Your task to perform on an android device: Open Chrome and go to the settings page Image 0: 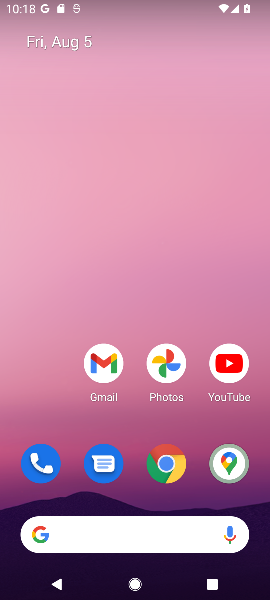
Step 0: drag from (194, 547) to (98, 66)
Your task to perform on an android device: Open Chrome and go to the settings page Image 1: 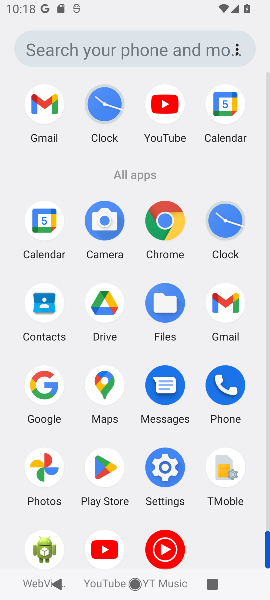
Step 1: click (169, 477)
Your task to perform on an android device: Open Chrome and go to the settings page Image 2: 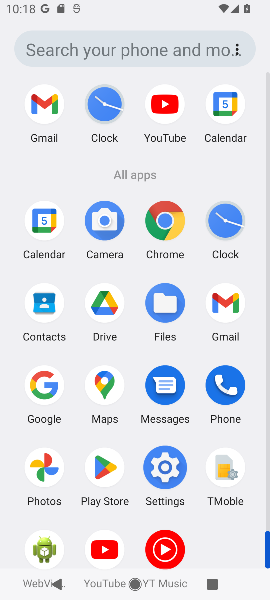
Step 2: click (169, 477)
Your task to perform on an android device: Open Chrome and go to the settings page Image 3: 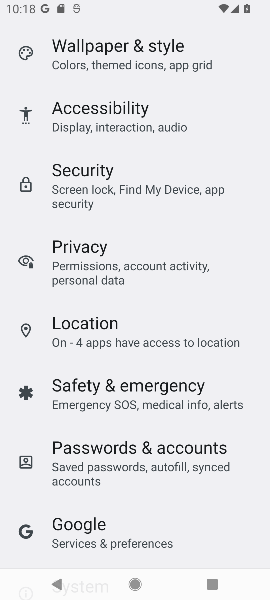
Step 3: drag from (84, 66) to (128, 497)
Your task to perform on an android device: Open Chrome and go to the settings page Image 4: 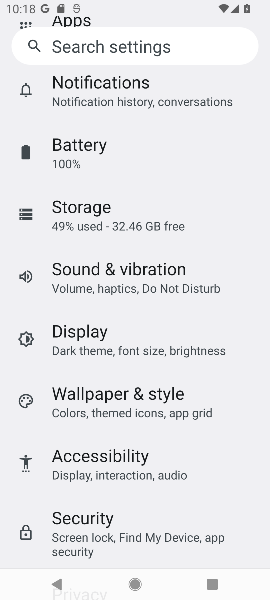
Step 4: drag from (67, 204) to (135, 481)
Your task to perform on an android device: Open Chrome and go to the settings page Image 5: 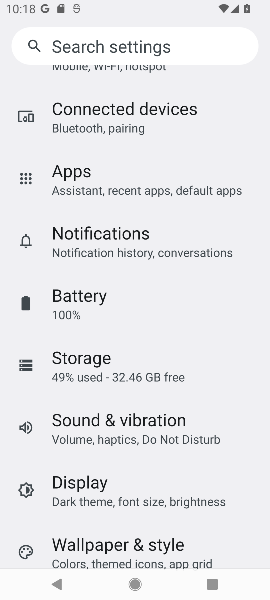
Step 5: drag from (102, 205) to (154, 559)
Your task to perform on an android device: Open Chrome and go to the settings page Image 6: 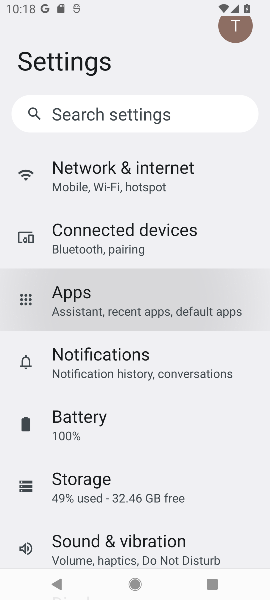
Step 6: drag from (61, 107) to (116, 553)
Your task to perform on an android device: Open Chrome and go to the settings page Image 7: 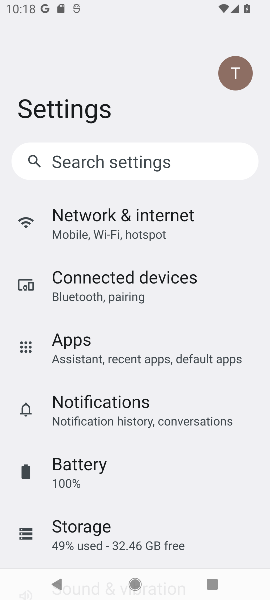
Step 7: drag from (92, 186) to (142, 486)
Your task to perform on an android device: Open Chrome and go to the settings page Image 8: 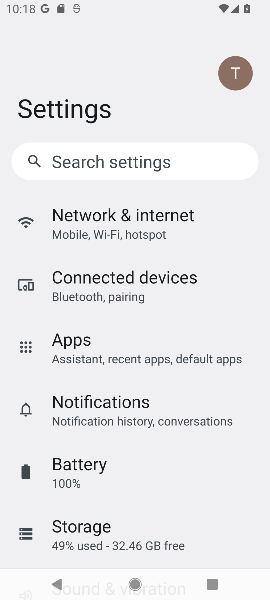
Step 8: press back button
Your task to perform on an android device: Open Chrome and go to the settings page Image 9: 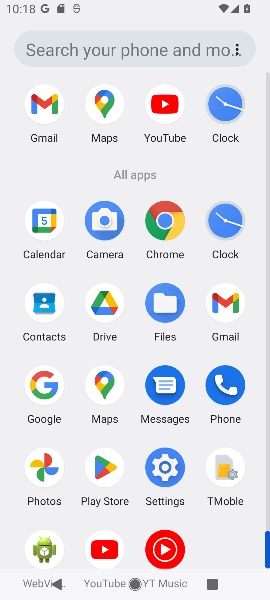
Step 9: click (163, 475)
Your task to perform on an android device: Open Chrome and go to the settings page Image 10: 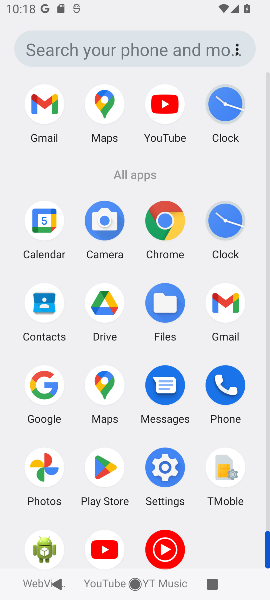
Step 10: click (163, 475)
Your task to perform on an android device: Open Chrome and go to the settings page Image 11: 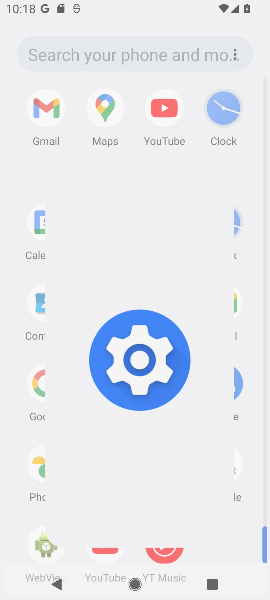
Step 11: click (163, 477)
Your task to perform on an android device: Open Chrome and go to the settings page Image 12: 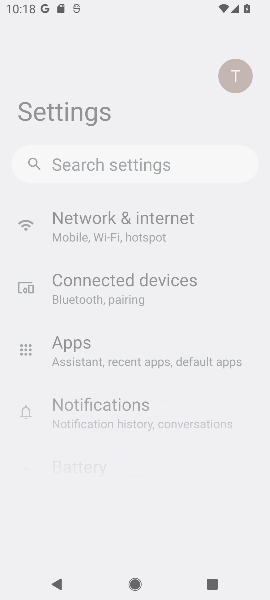
Step 12: click (163, 477)
Your task to perform on an android device: Open Chrome and go to the settings page Image 13: 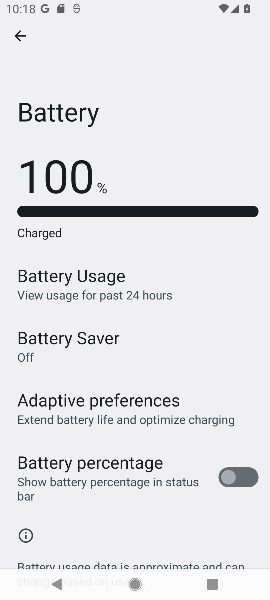
Step 13: click (21, 56)
Your task to perform on an android device: Open Chrome and go to the settings page Image 14: 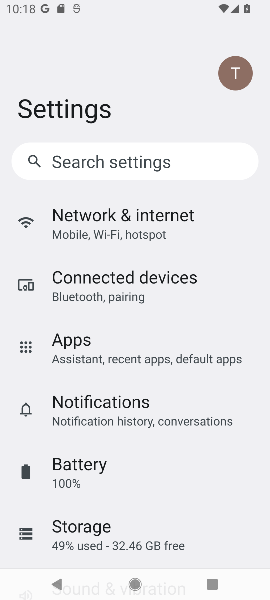
Step 14: task complete